Your task to perform on an android device: change the clock display to show seconds Image 0: 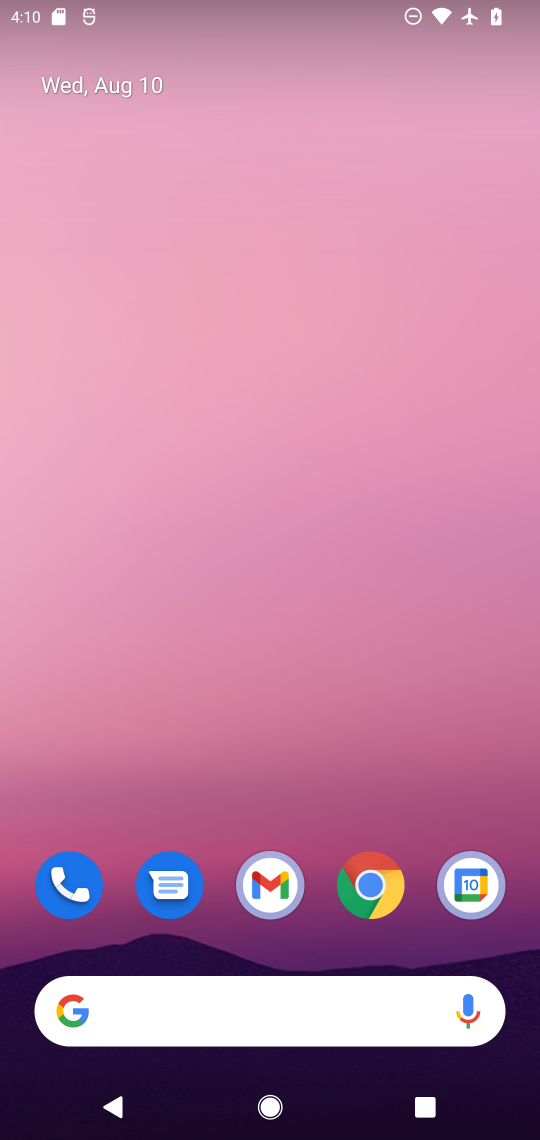
Step 0: drag from (314, 942) to (229, 103)
Your task to perform on an android device: change the clock display to show seconds Image 1: 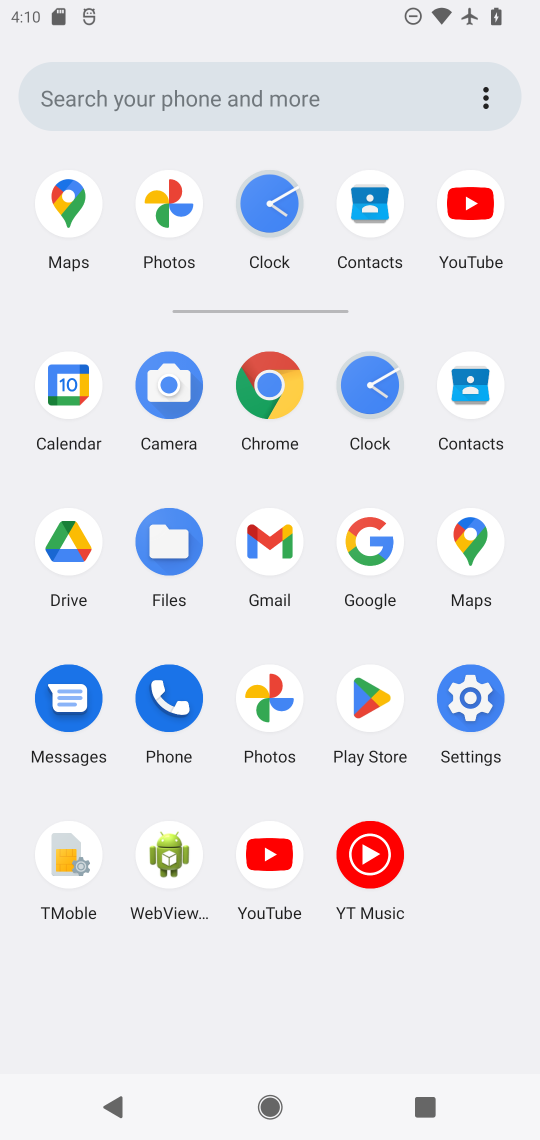
Step 1: click (273, 194)
Your task to perform on an android device: change the clock display to show seconds Image 2: 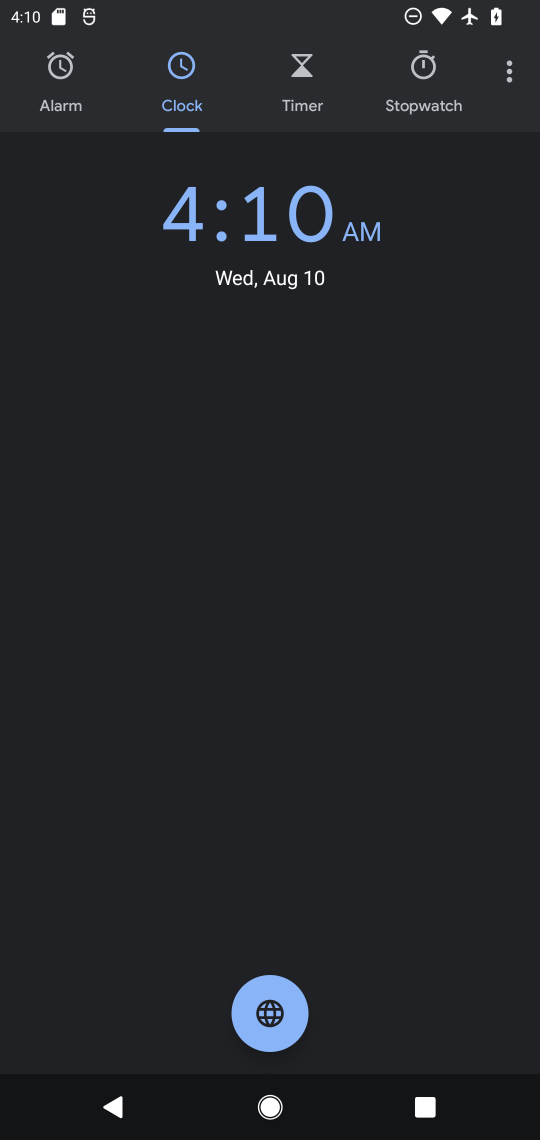
Step 2: click (512, 75)
Your task to perform on an android device: change the clock display to show seconds Image 3: 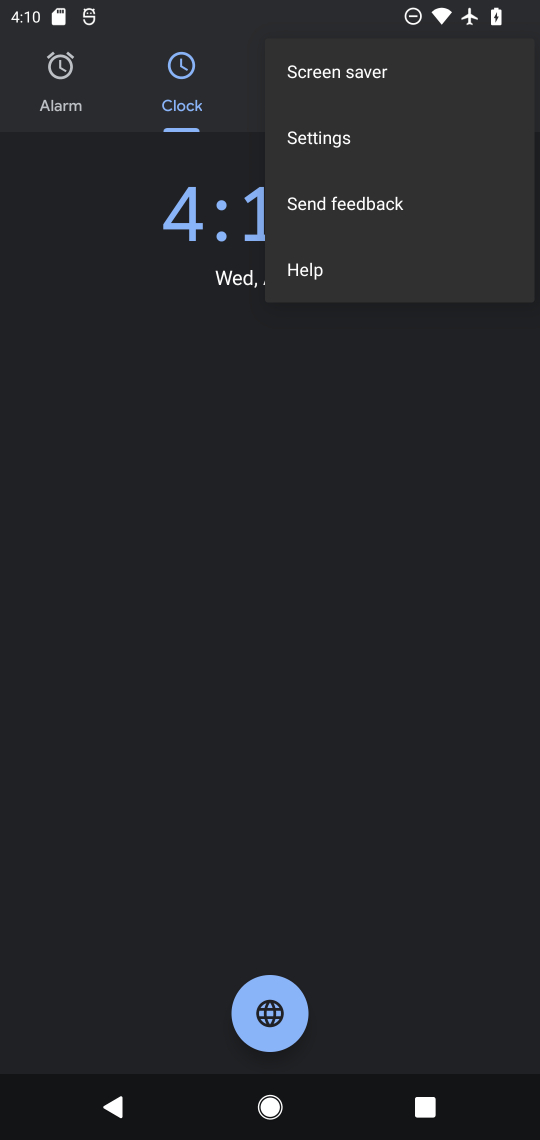
Step 3: click (343, 132)
Your task to perform on an android device: change the clock display to show seconds Image 4: 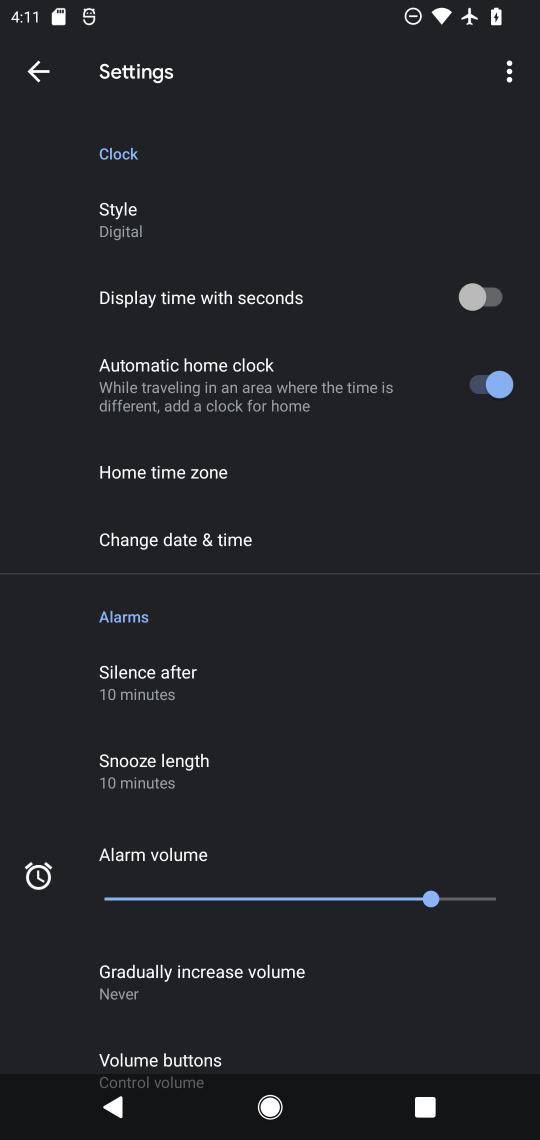
Step 4: click (473, 301)
Your task to perform on an android device: change the clock display to show seconds Image 5: 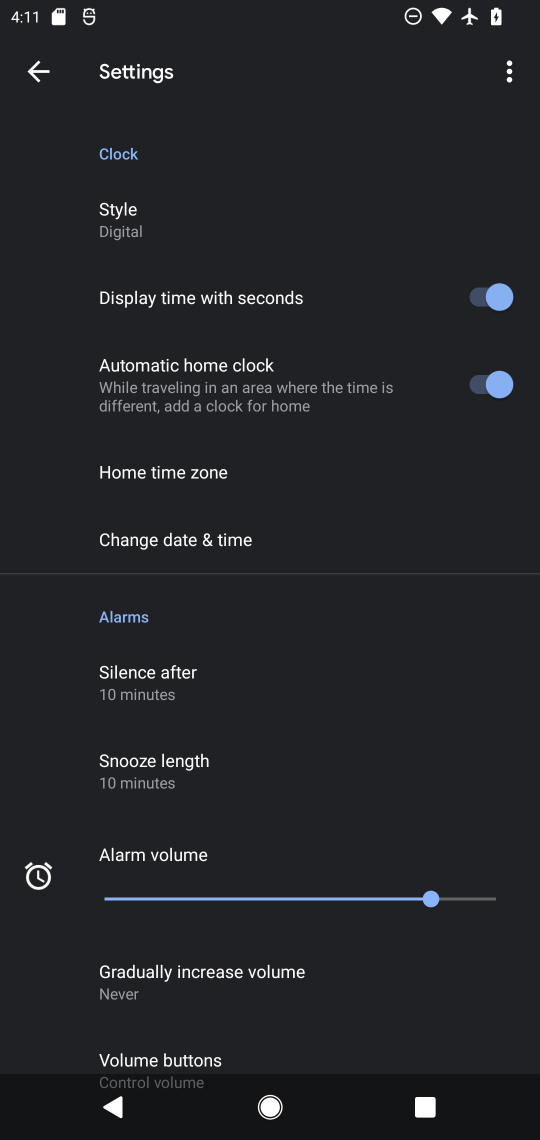
Step 5: task complete